Your task to perform on an android device: Open Google Maps Image 0: 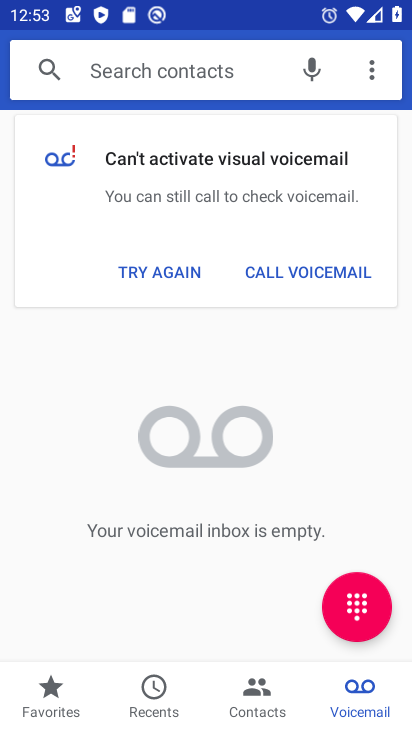
Step 0: press home button
Your task to perform on an android device: Open Google Maps Image 1: 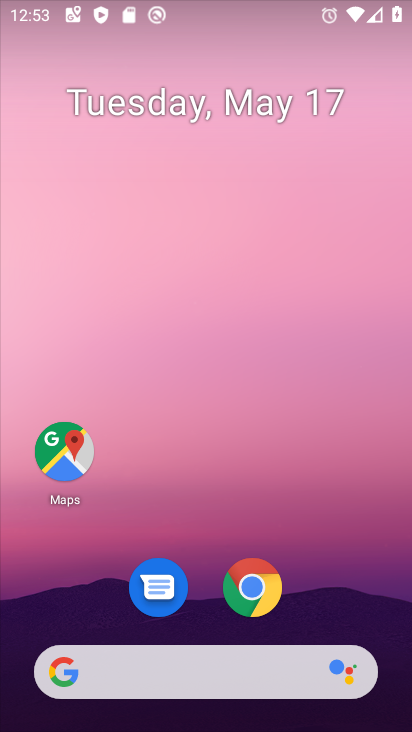
Step 1: drag from (388, 660) to (273, 54)
Your task to perform on an android device: Open Google Maps Image 2: 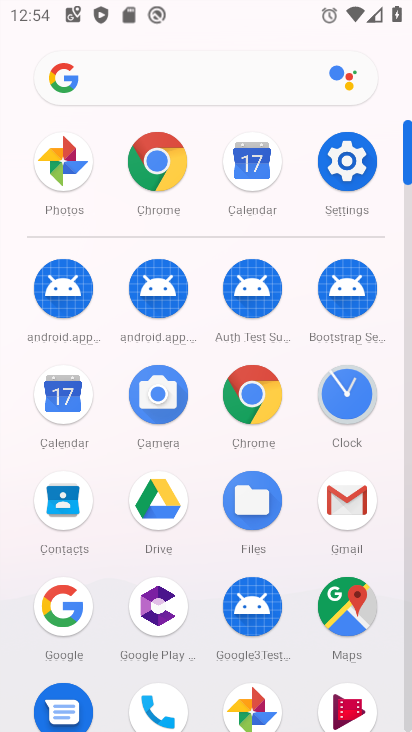
Step 2: click (335, 621)
Your task to perform on an android device: Open Google Maps Image 3: 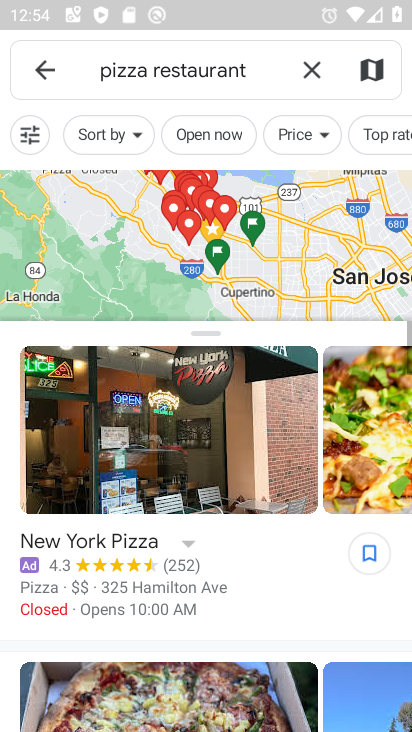
Step 3: click (310, 76)
Your task to perform on an android device: Open Google Maps Image 4: 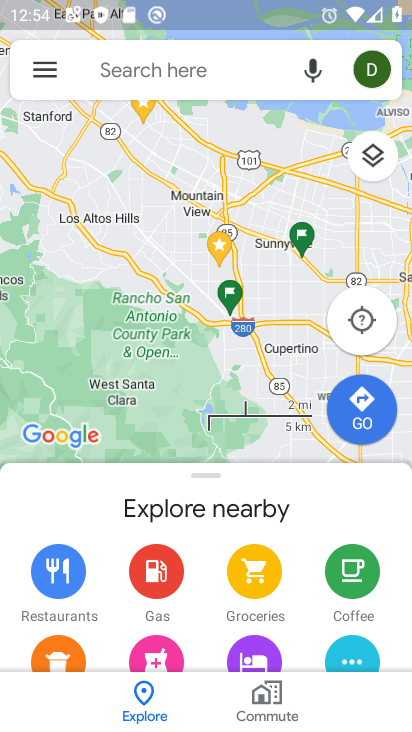
Step 4: task complete